Your task to perform on an android device: allow notifications from all sites in the chrome app Image 0: 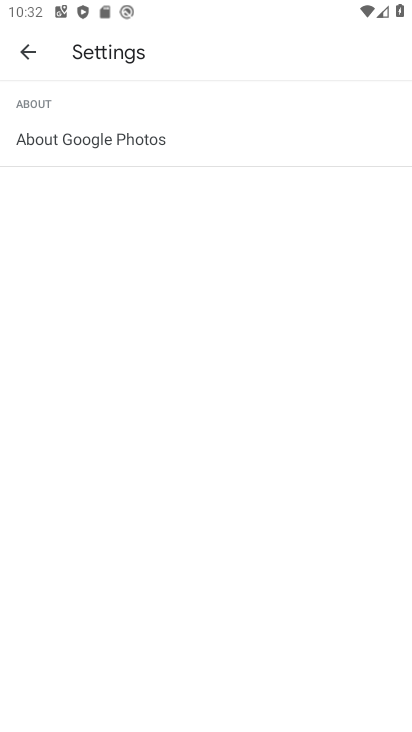
Step 0: press home button
Your task to perform on an android device: allow notifications from all sites in the chrome app Image 1: 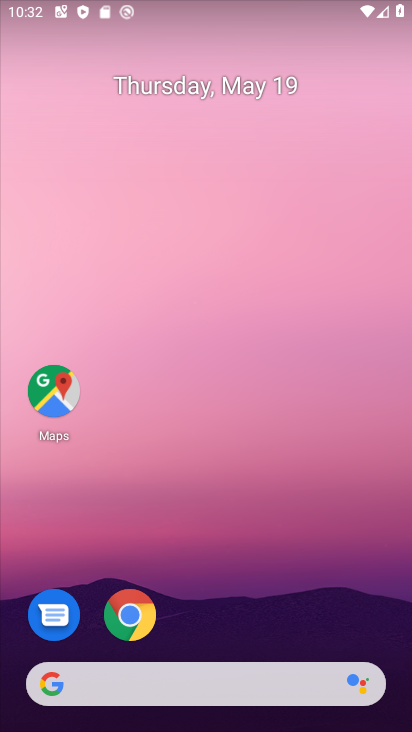
Step 1: click (132, 607)
Your task to perform on an android device: allow notifications from all sites in the chrome app Image 2: 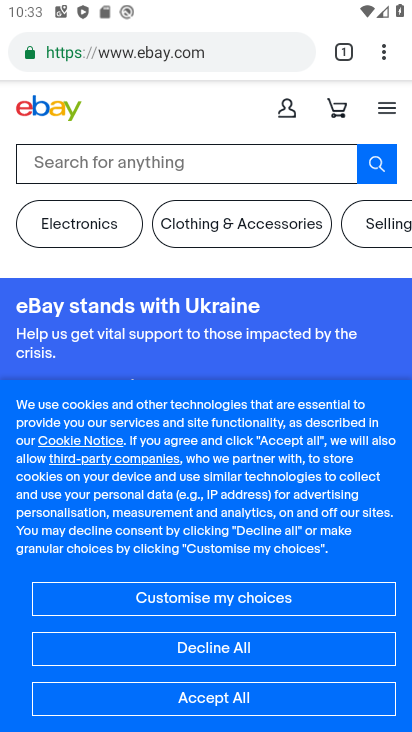
Step 2: click (381, 49)
Your task to perform on an android device: allow notifications from all sites in the chrome app Image 3: 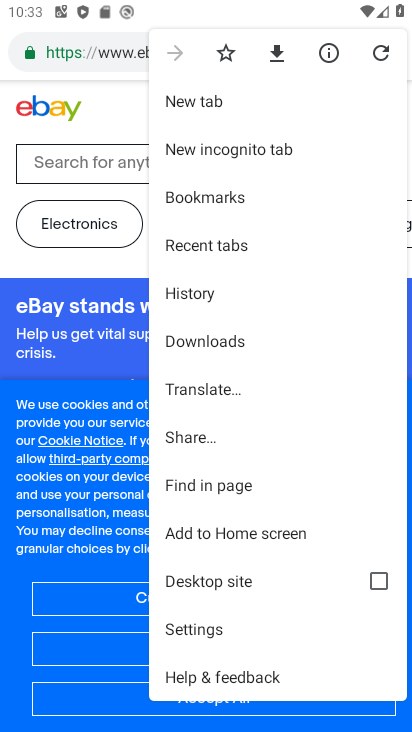
Step 3: click (187, 628)
Your task to perform on an android device: allow notifications from all sites in the chrome app Image 4: 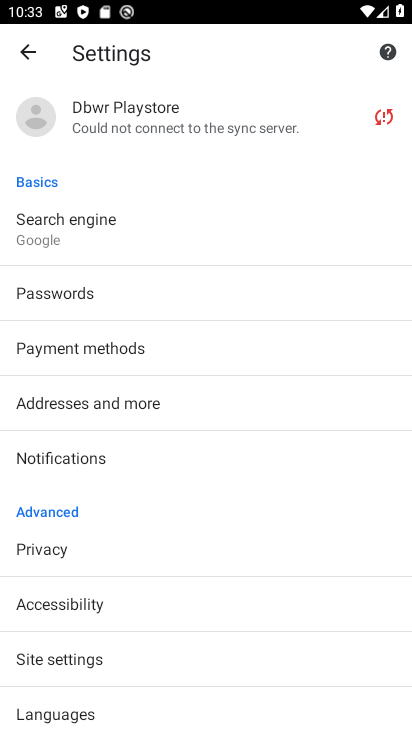
Step 4: drag from (213, 608) to (216, 312)
Your task to perform on an android device: allow notifications from all sites in the chrome app Image 5: 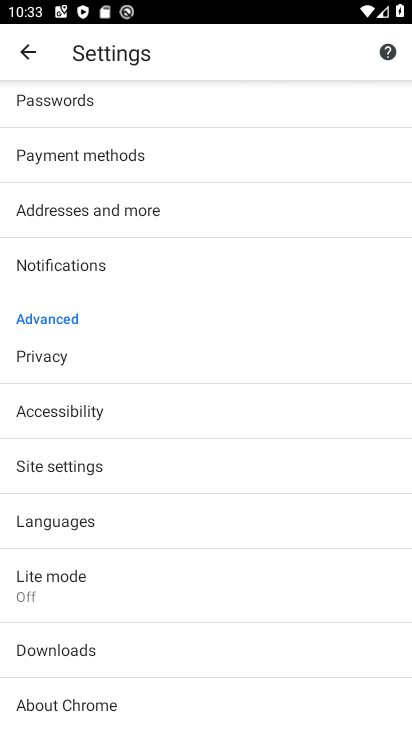
Step 5: click (46, 464)
Your task to perform on an android device: allow notifications from all sites in the chrome app Image 6: 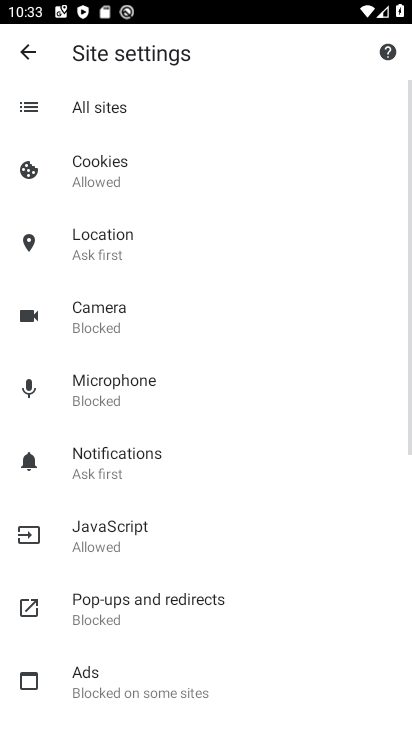
Step 6: click (103, 462)
Your task to perform on an android device: allow notifications from all sites in the chrome app Image 7: 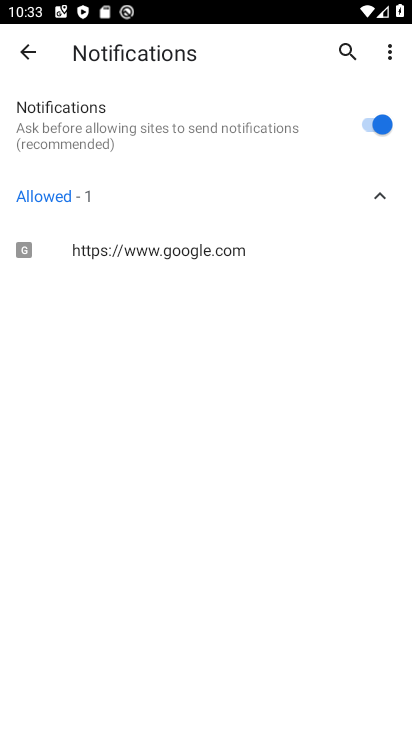
Step 7: task complete